Your task to perform on an android device: Open Amazon Image 0: 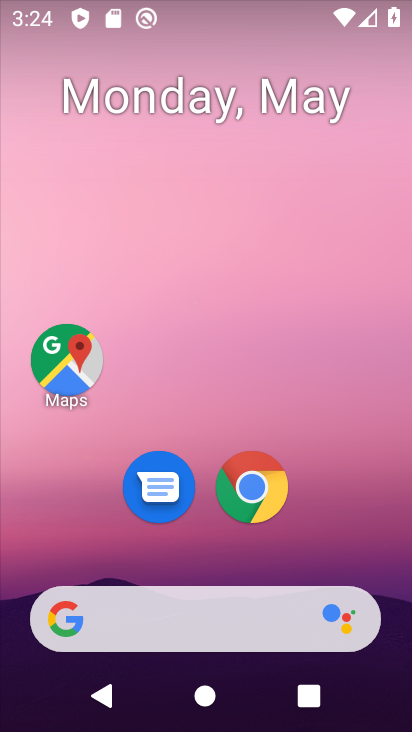
Step 0: click (257, 475)
Your task to perform on an android device: Open Amazon Image 1: 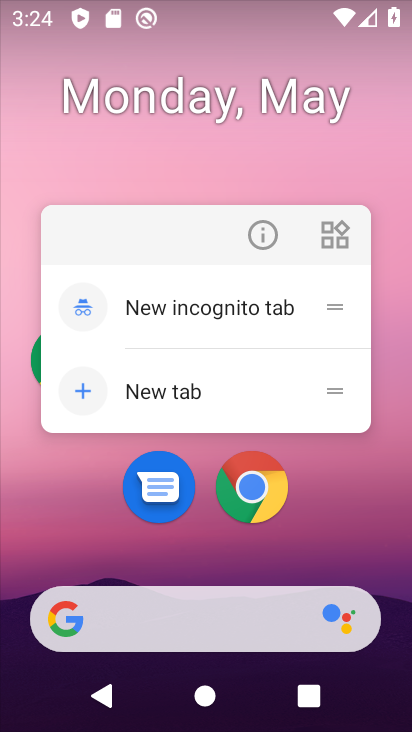
Step 1: click (253, 486)
Your task to perform on an android device: Open Amazon Image 2: 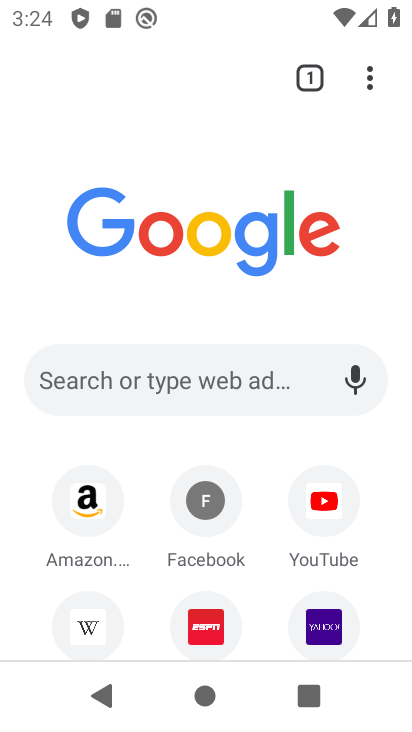
Step 2: click (78, 496)
Your task to perform on an android device: Open Amazon Image 3: 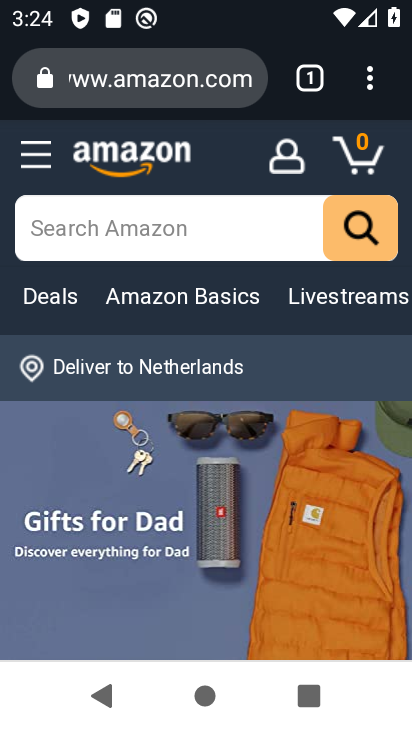
Step 3: task complete